Your task to perform on an android device: turn off data saver in the chrome app Image 0: 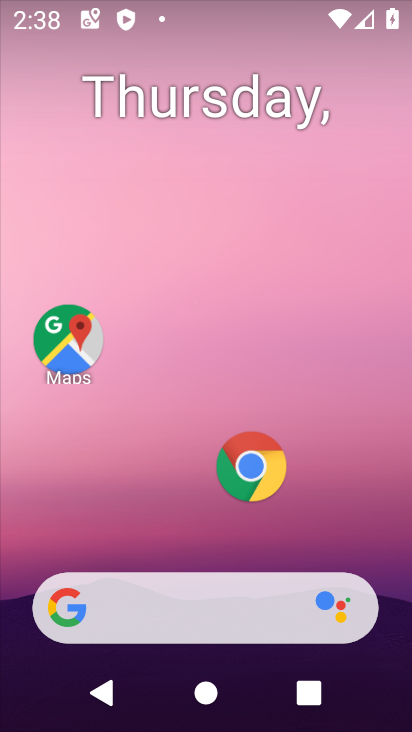
Step 0: click (239, 478)
Your task to perform on an android device: turn off data saver in the chrome app Image 1: 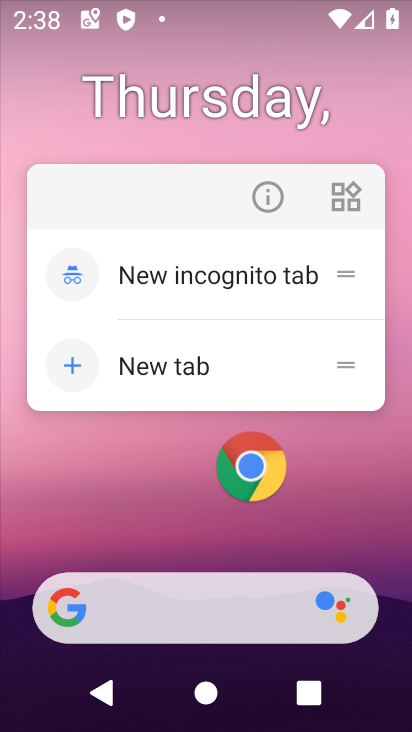
Step 1: click (260, 461)
Your task to perform on an android device: turn off data saver in the chrome app Image 2: 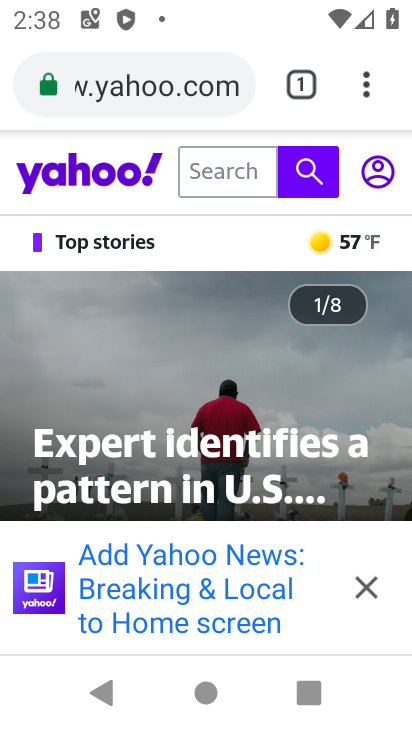
Step 2: click (368, 79)
Your task to perform on an android device: turn off data saver in the chrome app Image 3: 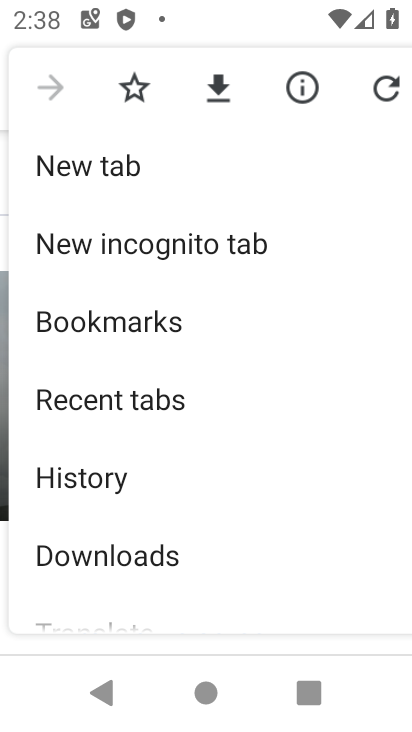
Step 3: drag from (179, 570) to (190, 286)
Your task to perform on an android device: turn off data saver in the chrome app Image 4: 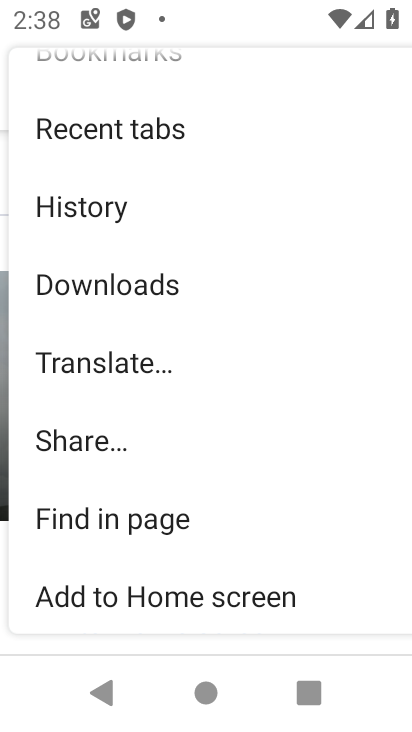
Step 4: drag from (177, 492) to (215, 280)
Your task to perform on an android device: turn off data saver in the chrome app Image 5: 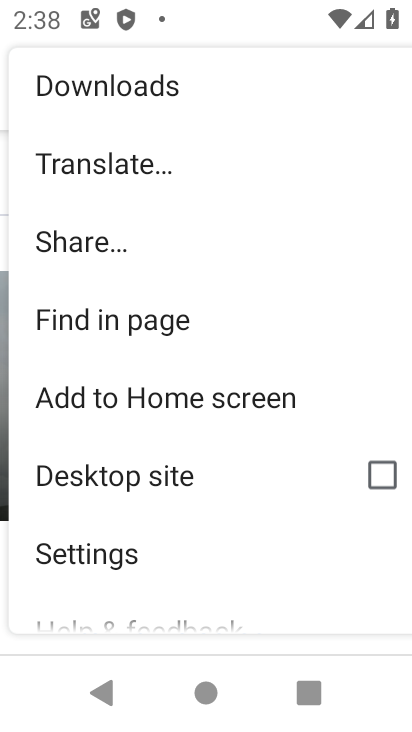
Step 5: click (124, 553)
Your task to perform on an android device: turn off data saver in the chrome app Image 6: 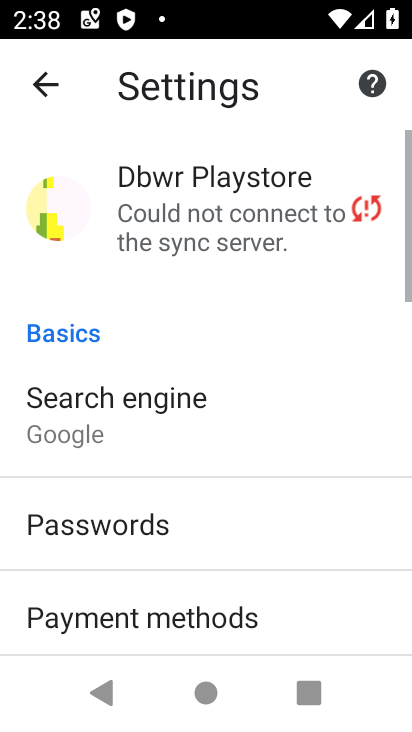
Step 6: drag from (218, 588) to (215, 230)
Your task to perform on an android device: turn off data saver in the chrome app Image 7: 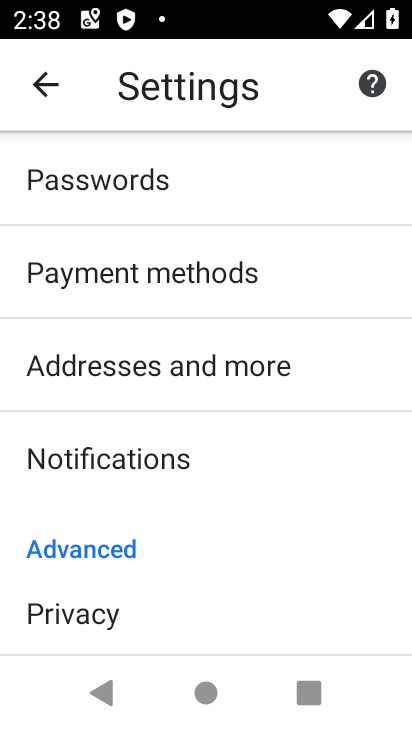
Step 7: drag from (206, 584) to (256, 268)
Your task to perform on an android device: turn off data saver in the chrome app Image 8: 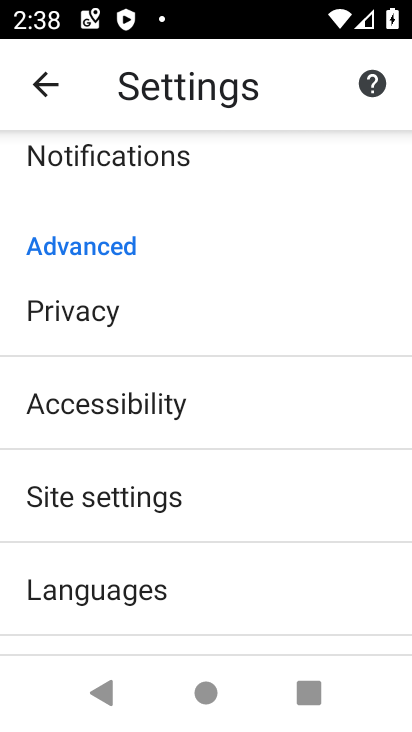
Step 8: drag from (190, 588) to (152, 439)
Your task to perform on an android device: turn off data saver in the chrome app Image 9: 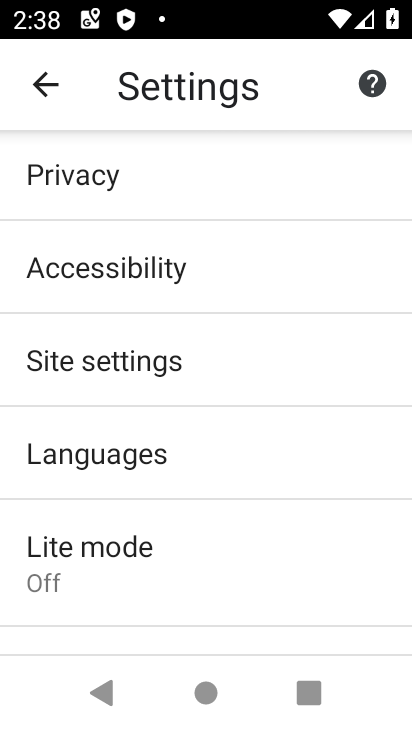
Step 9: click (156, 540)
Your task to perform on an android device: turn off data saver in the chrome app Image 10: 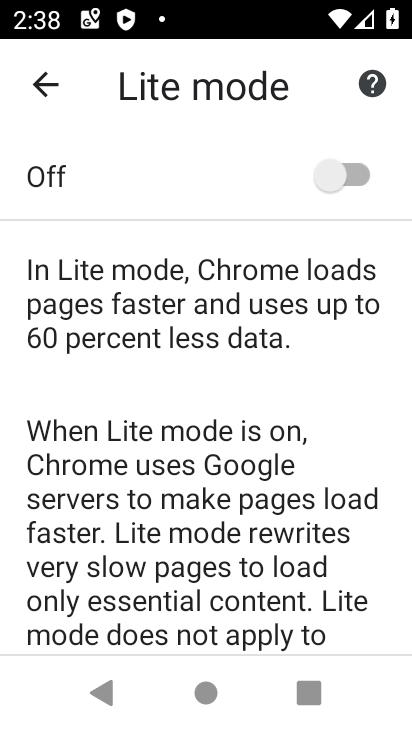
Step 10: task complete